Your task to perform on an android device: toggle wifi Image 0: 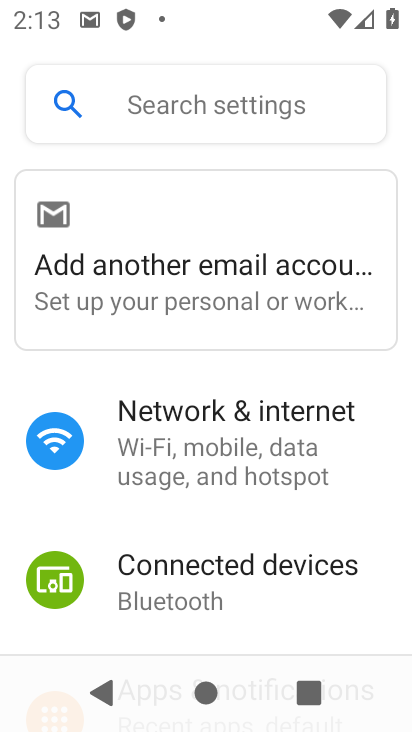
Step 0: click (243, 410)
Your task to perform on an android device: toggle wifi Image 1: 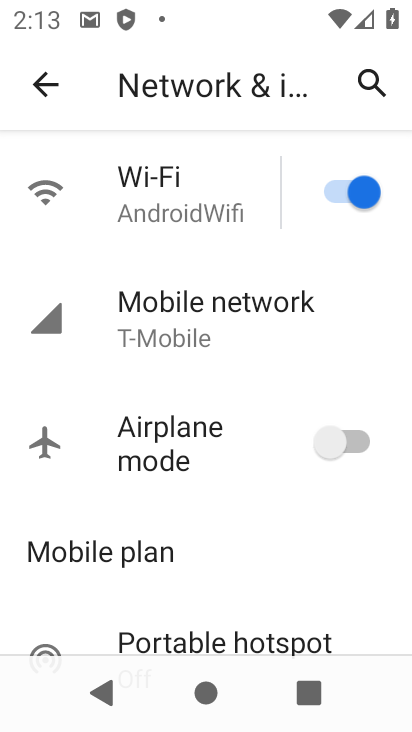
Step 1: click (347, 194)
Your task to perform on an android device: toggle wifi Image 2: 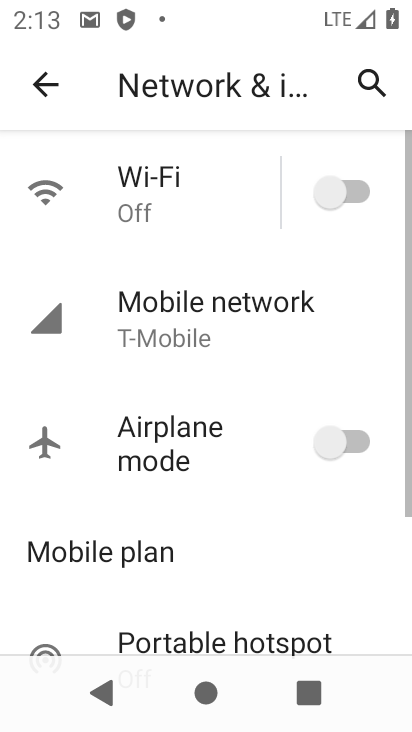
Step 2: task complete